Your task to perform on an android device: open sync settings in chrome Image 0: 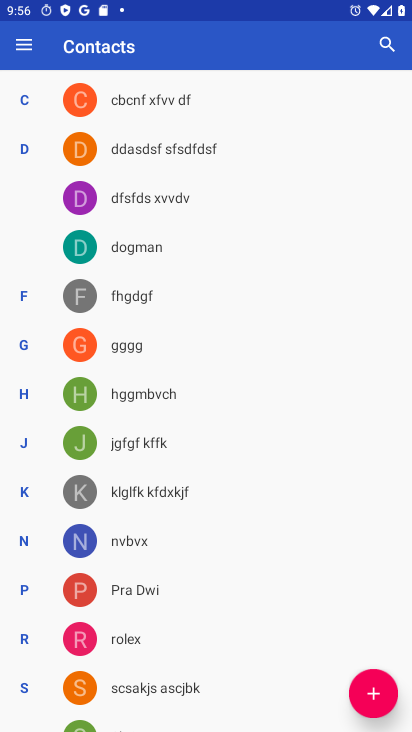
Step 0: press home button
Your task to perform on an android device: open sync settings in chrome Image 1: 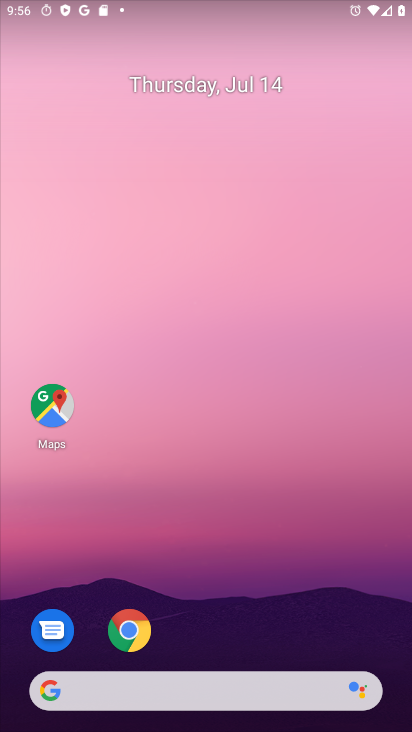
Step 1: click (134, 630)
Your task to perform on an android device: open sync settings in chrome Image 2: 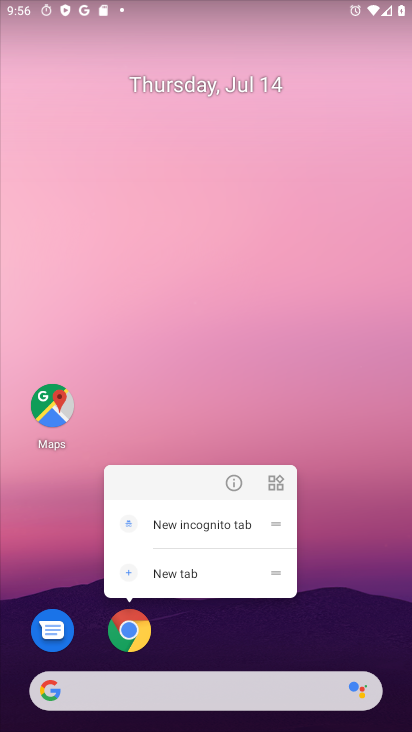
Step 2: click (124, 637)
Your task to perform on an android device: open sync settings in chrome Image 3: 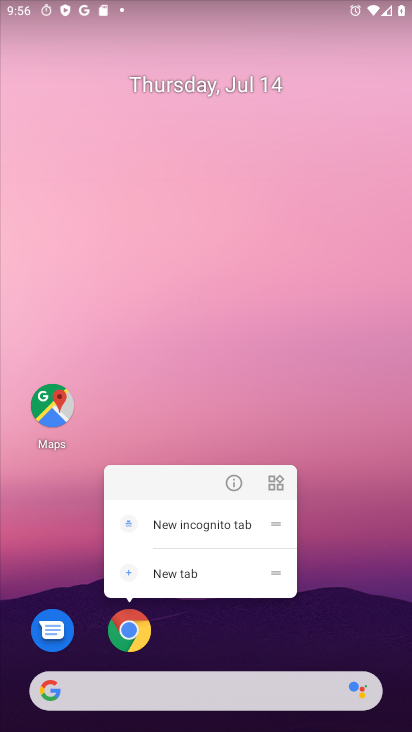
Step 3: click (140, 608)
Your task to perform on an android device: open sync settings in chrome Image 4: 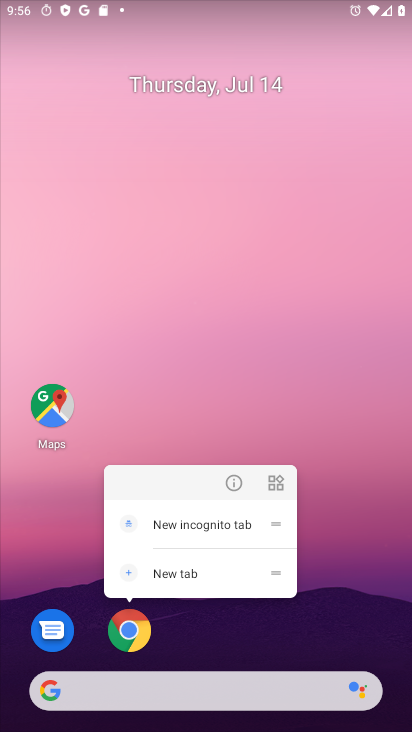
Step 4: click (133, 638)
Your task to perform on an android device: open sync settings in chrome Image 5: 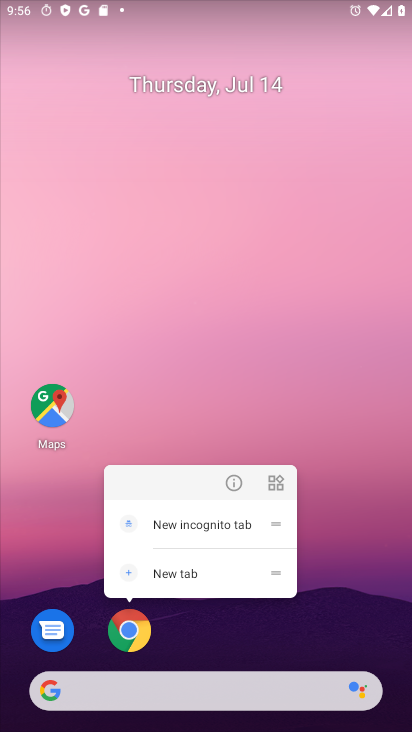
Step 5: click (142, 625)
Your task to perform on an android device: open sync settings in chrome Image 6: 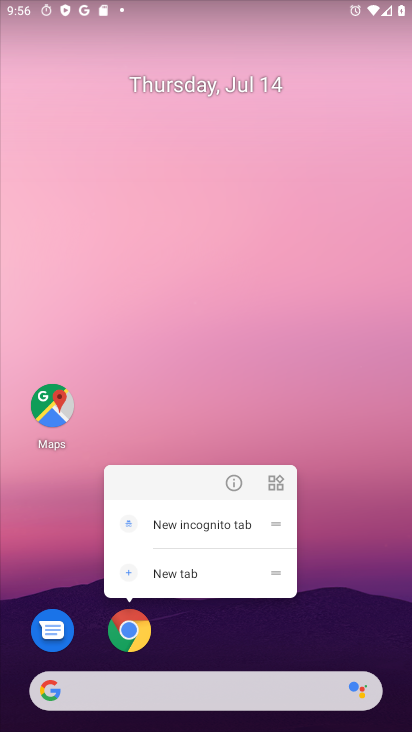
Step 6: task complete